Your task to perform on an android device: Show me the alarms in the clock app Image 0: 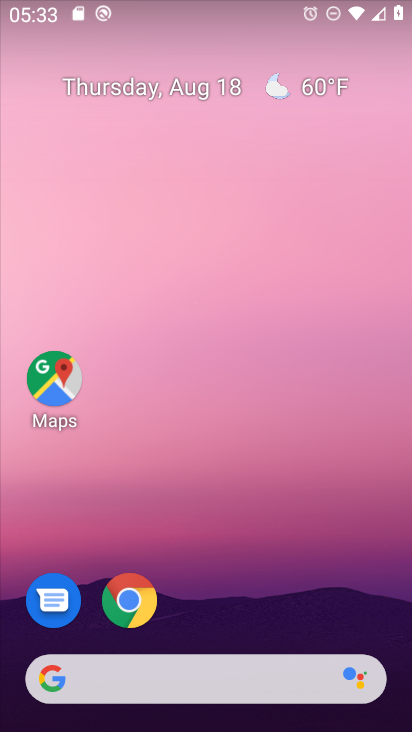
Step 0: press home button
Your task to perform on an android device: Show me the alarms in the clock app Image 1: 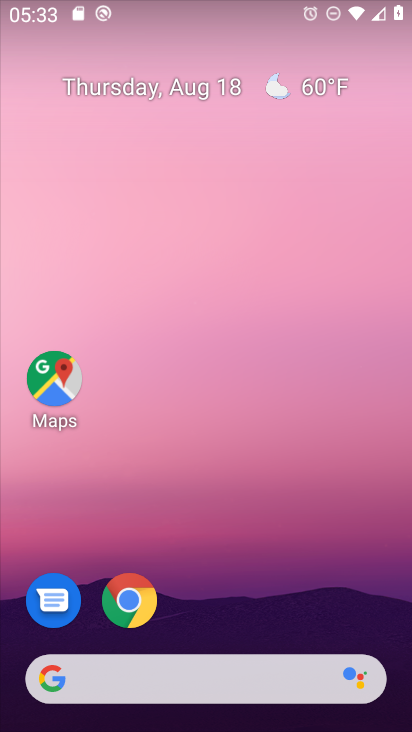
Step 1: drag from (244, 647) to (312, 143)
Your task to perform on an android device: Show me the alarms in the clock app Image 2: 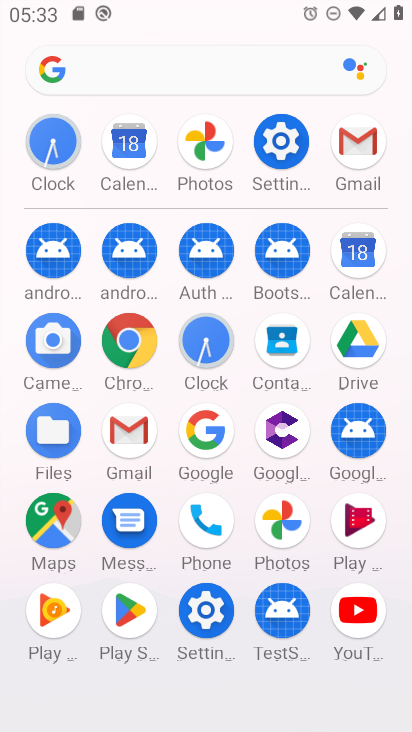
Step 2: click (37, 139)
Your task to perform on an android device: Show me the alarms in the clock app Image 3: 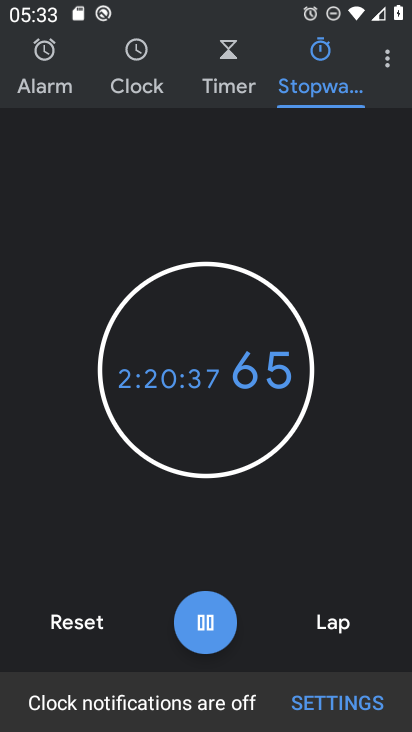
Step 3: click (46, 59)
Your task to perform on an android device: Show me the alarms in the clock app Image 4: 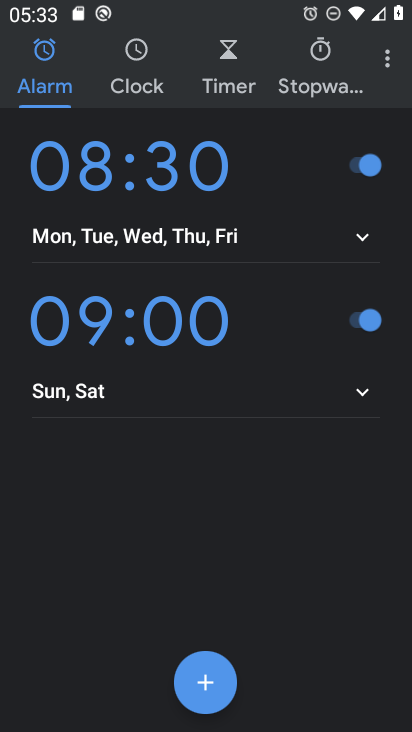
Step 4: task complete